Your task to perform on an android device: Open maps Image 0: 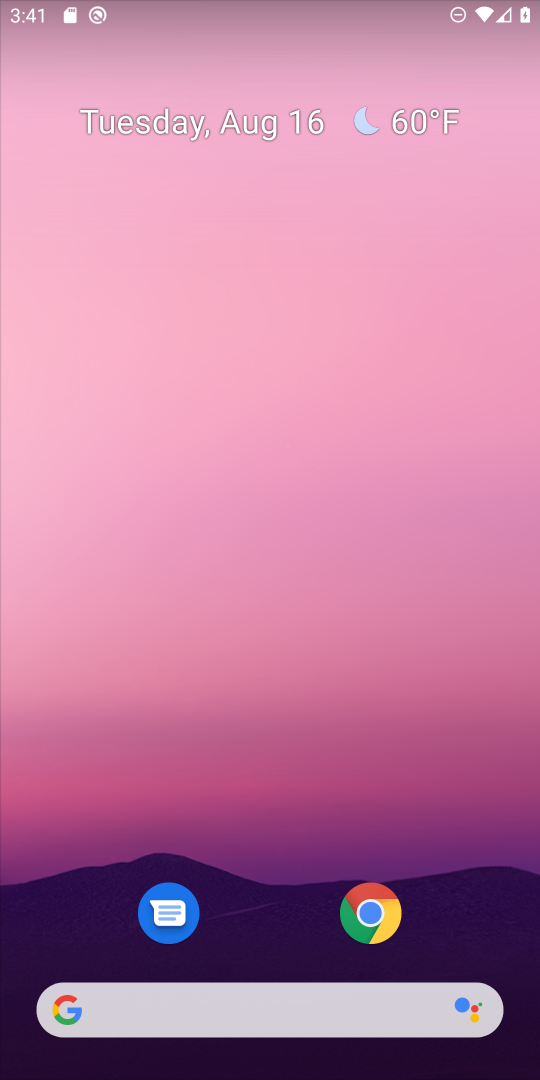
Step 0: drag from (481, 934) to (422, 361)
Your task to perform on an android device: Open maps Image 1: 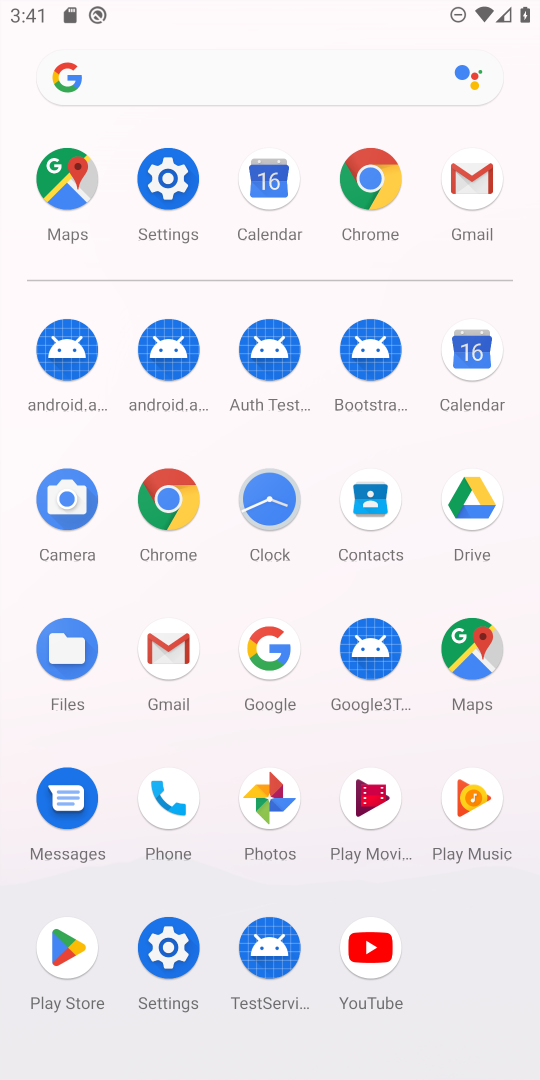
Step 1: click (472, 646)
Your task to perform on an android device: Open maps Image 2: 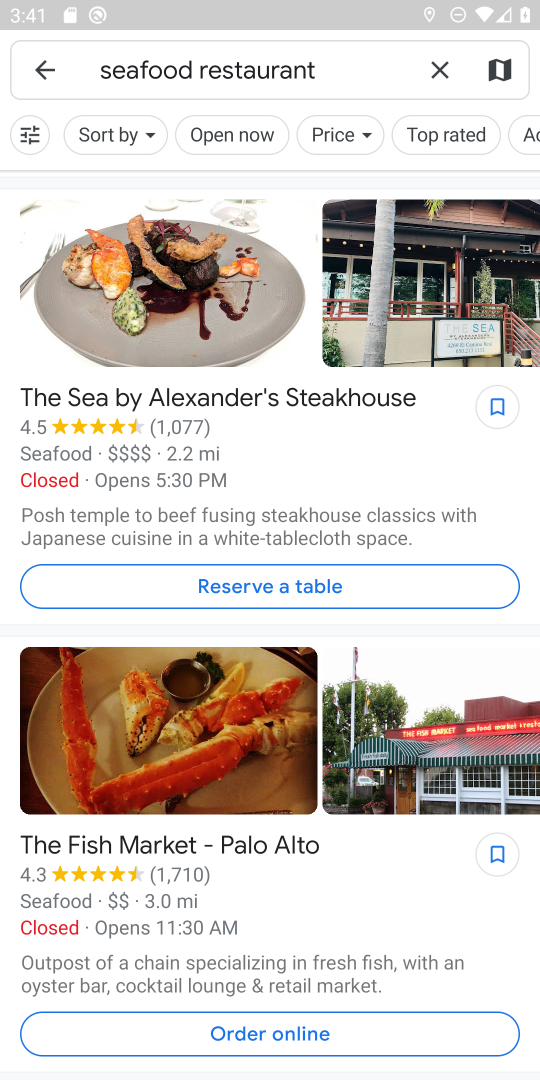
Step 2: drag from (383, 288) to (343, 652)
Your task to perform on an android device: Open maps Image 3: 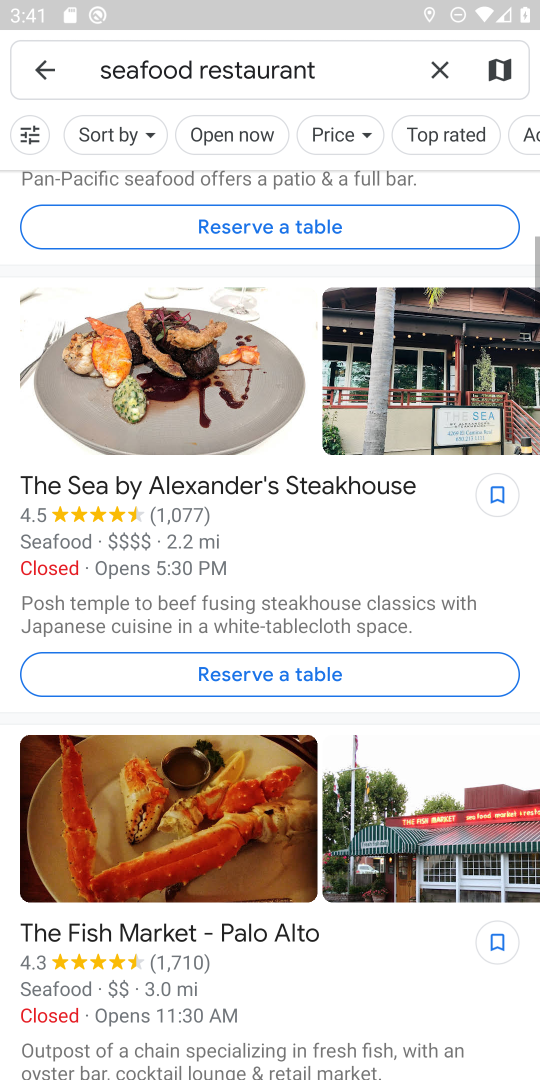
Step 3: click (438, 69)
Your task to perform on an android device: Open maps Image 4: 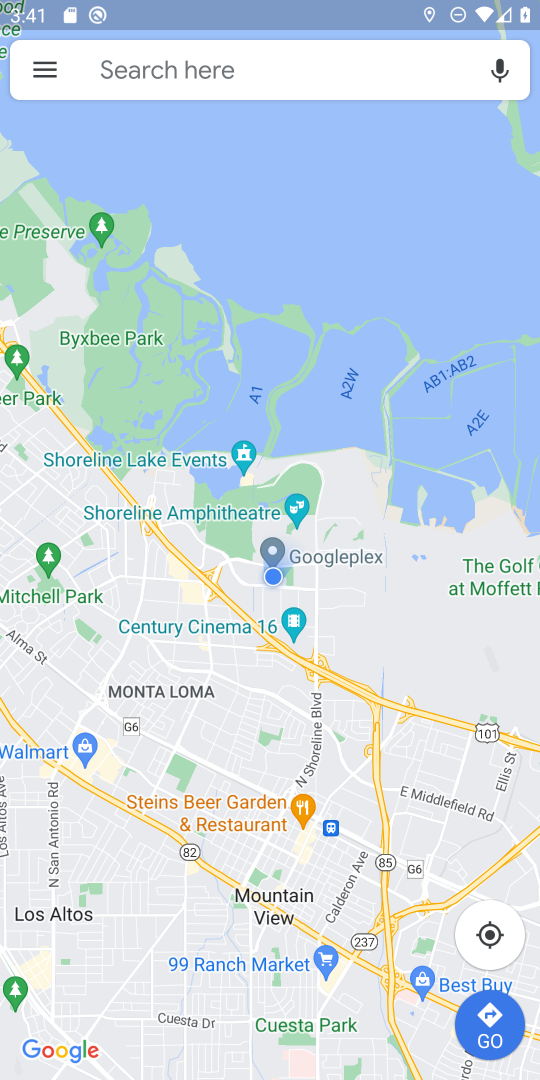
Step 4: task complete